Your task to perform on an android device: Go to calendar. Show me events next week Image 0: 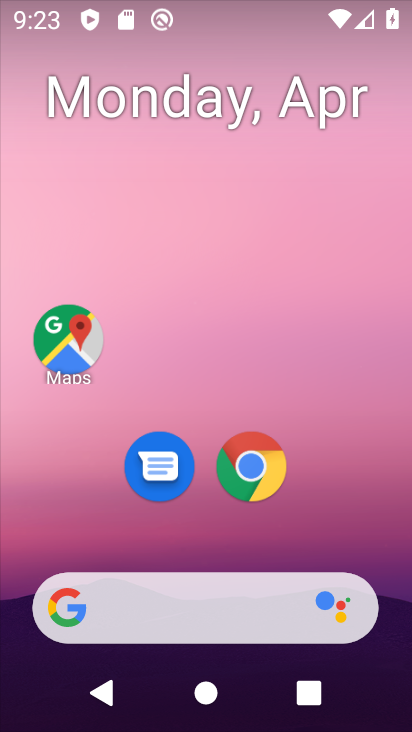
Step 0: drag from (223, 549) to (261, 55)
Your task to perform on an android device: Go to calendar. Show me events next week Image 1: 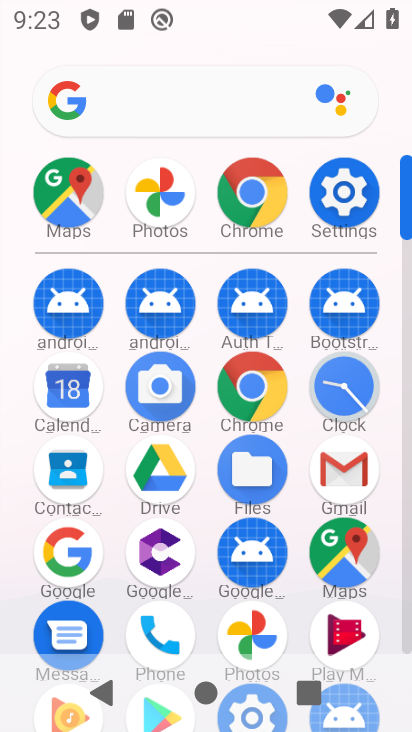
Step 1: click (65, 386)
Your task to perform on an android device: Go to calendar. Show me events next week Image 2: 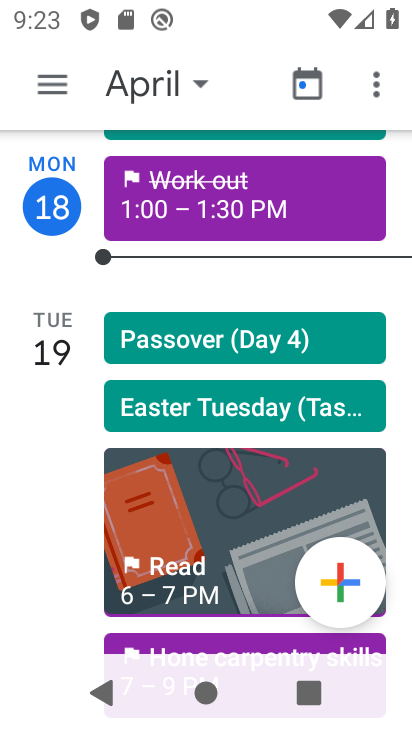
Step 2: click (199, 81)
Your task to perform on an android device: Go to calendar. Show me events next week Image 3: 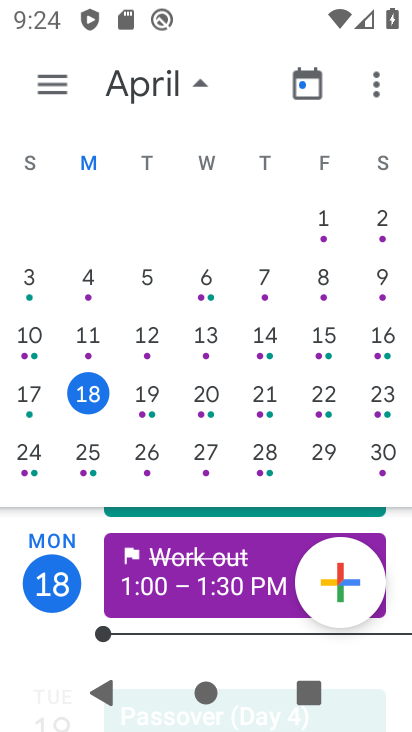
Step 3: click (109, 453)
Your task to perform on an android device: Go to calendar. Show me events next week Image 4: 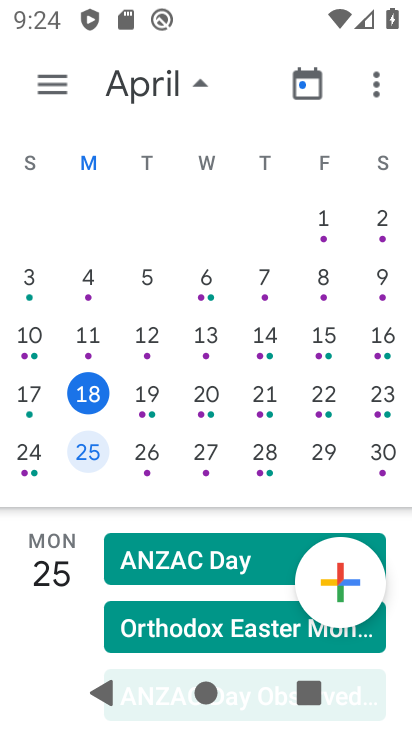
Step 4: click (59, 98)
Your task to perform on an android device: Go to calendar. Show me events next week Image 5: 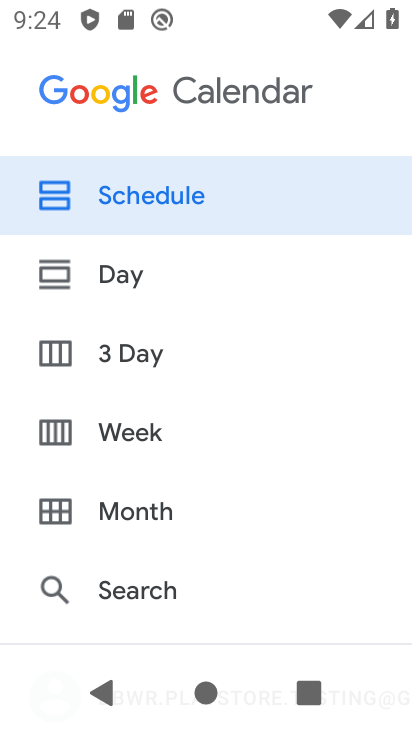
Step 5: click (139, 444)
Your task to perform on an android device: Go to calendar. Show me events next week Image 6: 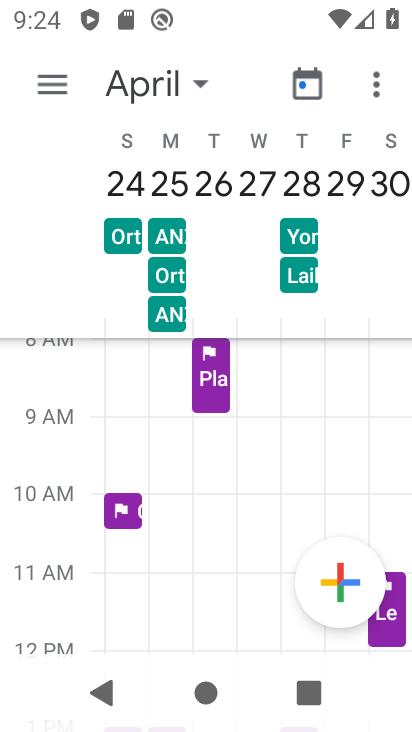
Step 6: task complete